Your task to perform on an android device: open app "Google Duo" (install if not already installed) Image 0: 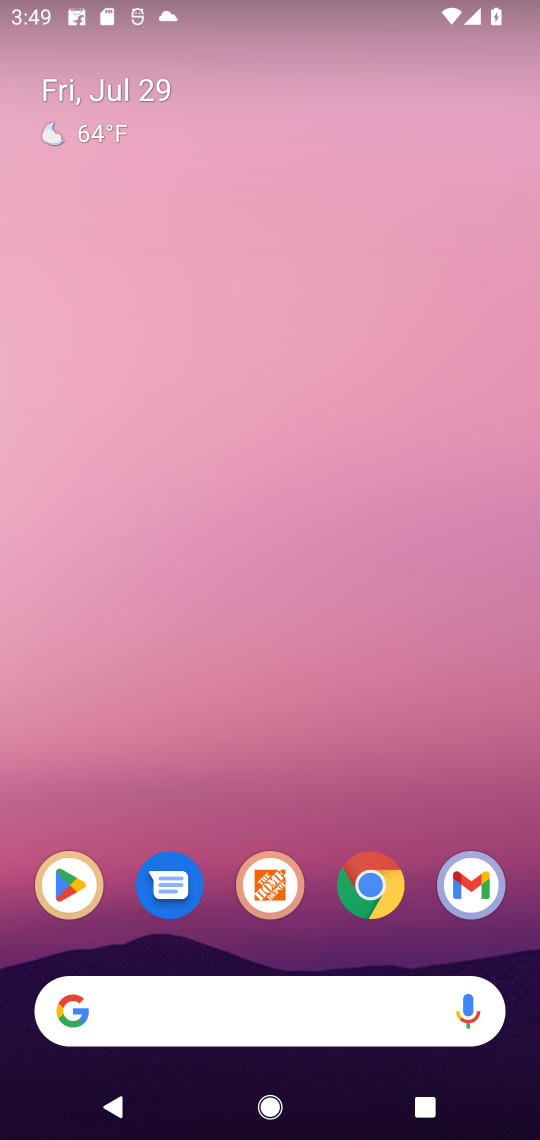
Step 0: click (64, 894)
Your task to perform on an android device: open app "Google Duo" (install if not already installed) Image 1: 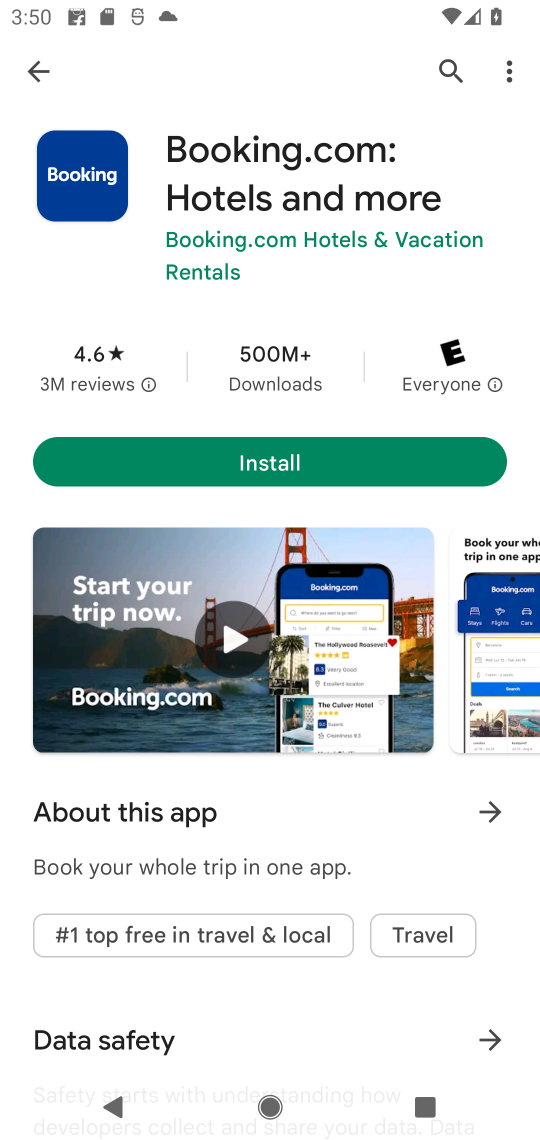
Step 1: click (451, 53)
Your task to perform on an android device: open app "Google Duo" (install if not already installed) Image 2: 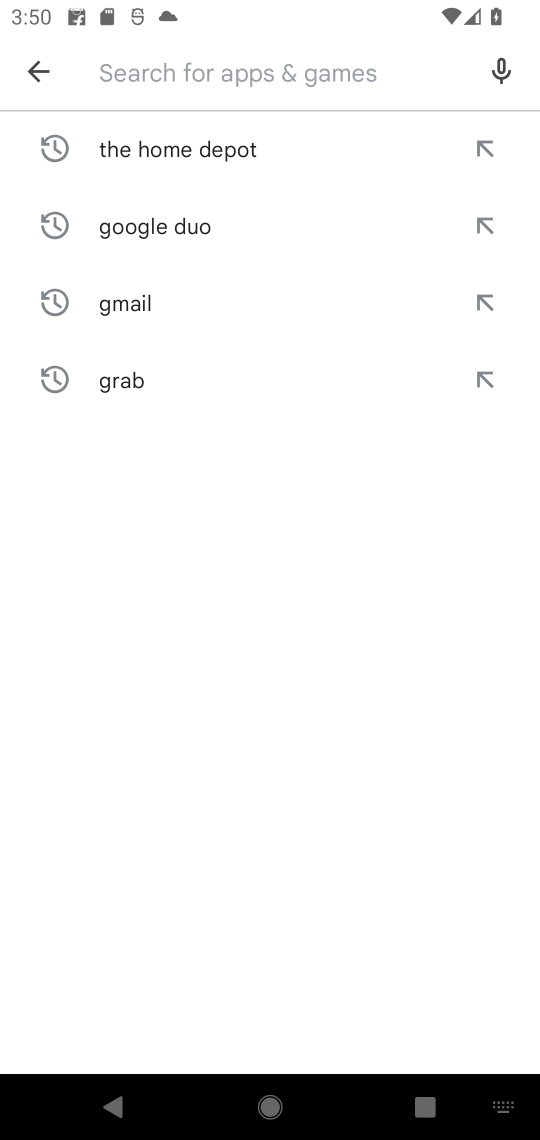
Step 2: type "Google Duo"
Your task to perform on an android device: open app "Google Duo" (install if not already installed) Image 3: 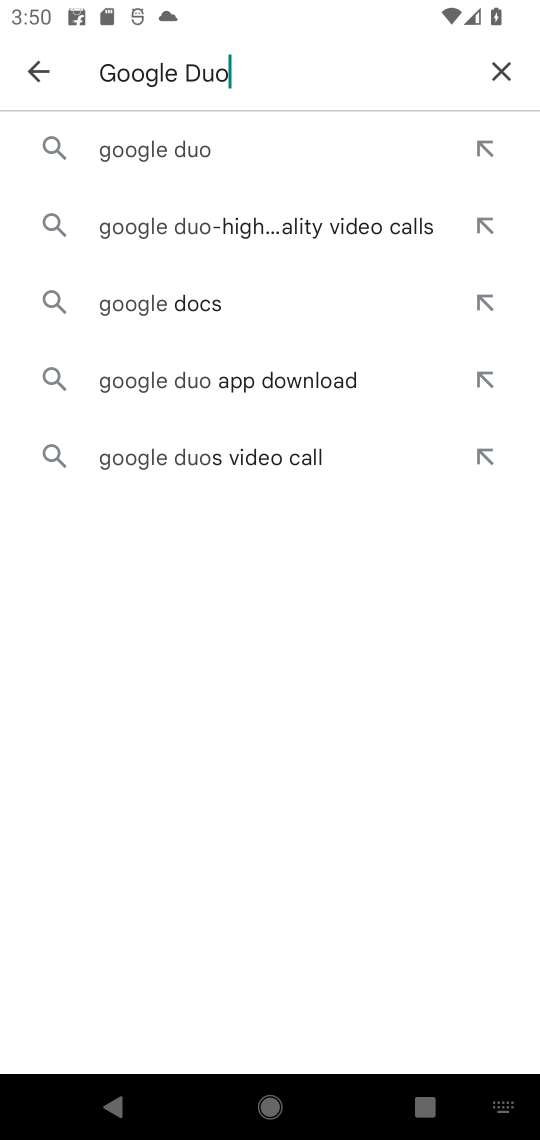
Step 3: click (121, 152)
Your task to perform on an android device: open app "Google Duo" (install if not already installed) Image 4: 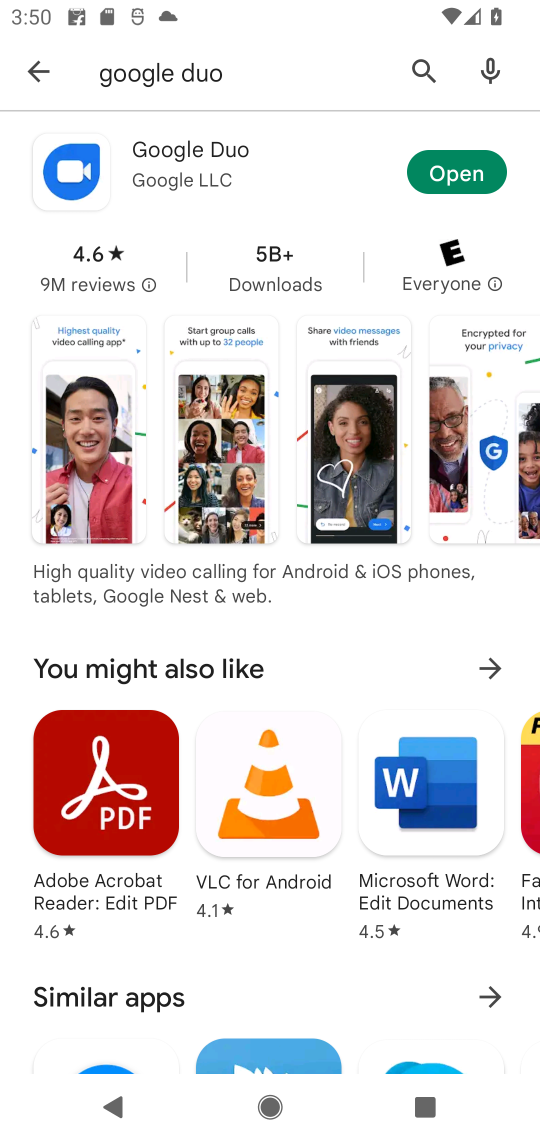
Step 4: click (456, 173)
Your task to perform on an android device: open app "Google Duo" (install if not already installed) Image 5: 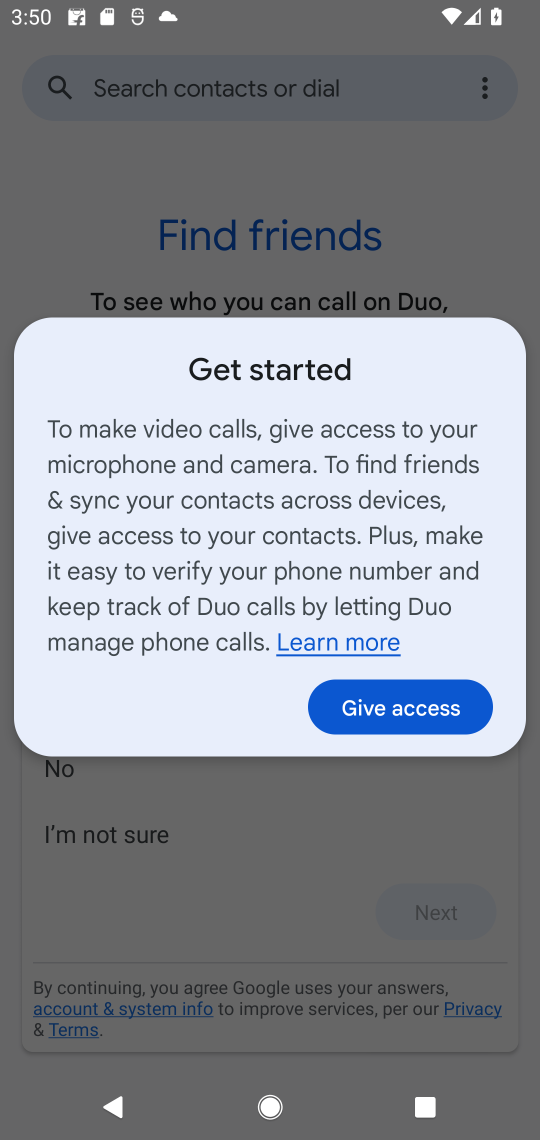
Step 5: task complete